Your task to perform on an android device: uninstall "Instagram" Image 0: 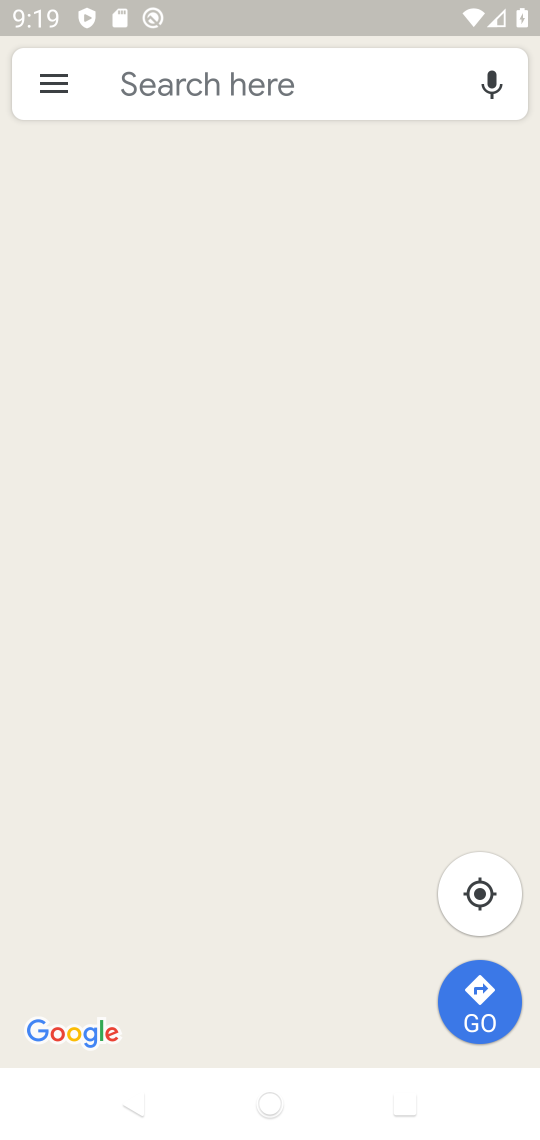
Step 0: press home button
Your task to perform on an android device: uninstall "Instagram" Image 1: 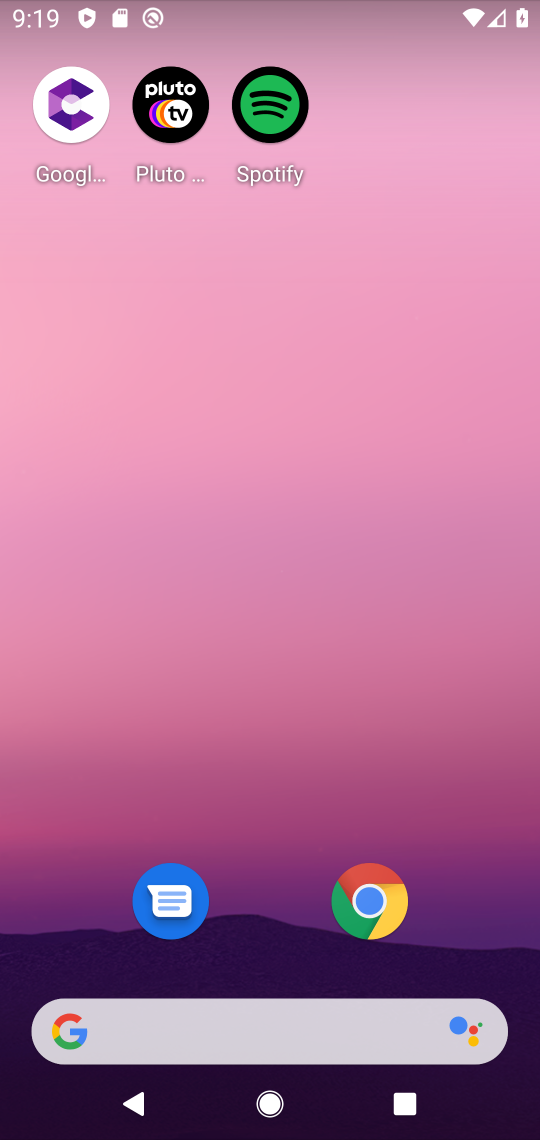
Step 1: drag from (465, 933) to (476, 145)
Your task to perform on an android device: uninstall "Instagram" Image 2: 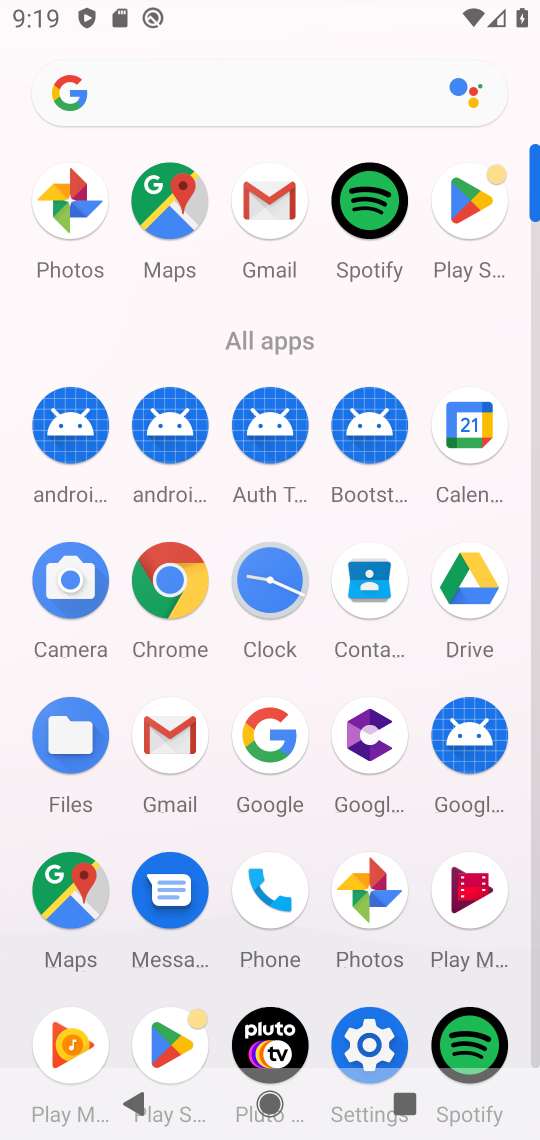
Step 2: click (482, 194)
Your task to perform on an android device: uninstall "Instagram" Image 3: 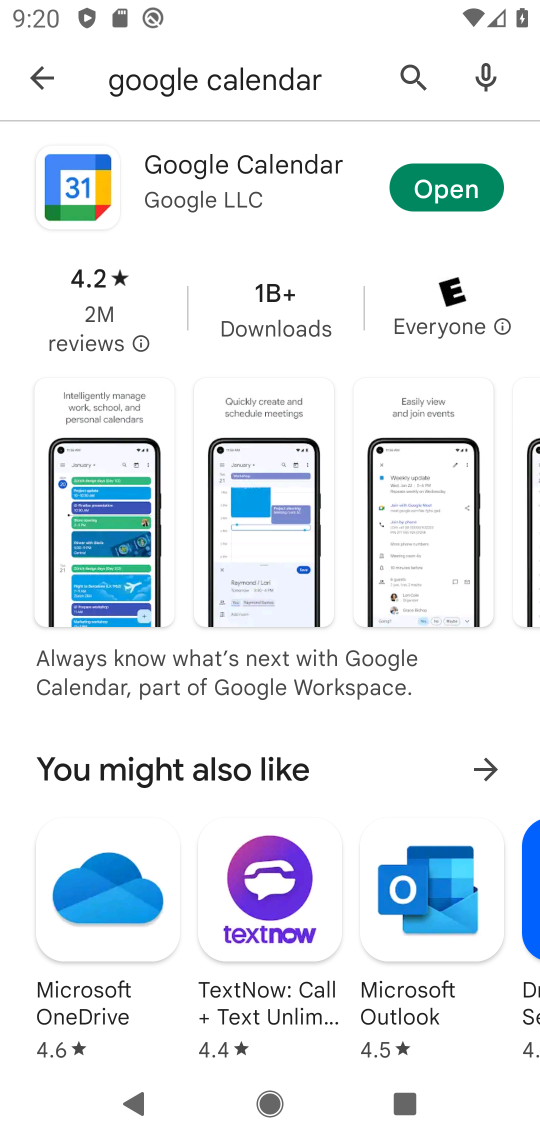
Step 3: press back button
Your task to perform on an android device: uninstall "Instagram" Image 4: 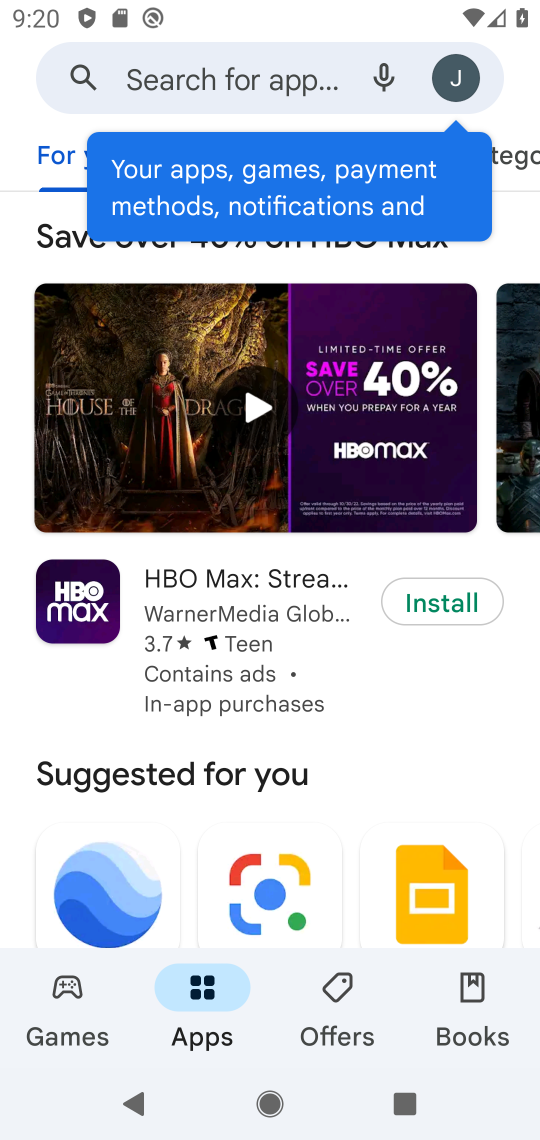
Step 4: click (269, 76)
Your task to perform on an android device: uninstall "Instagram" Image 5: 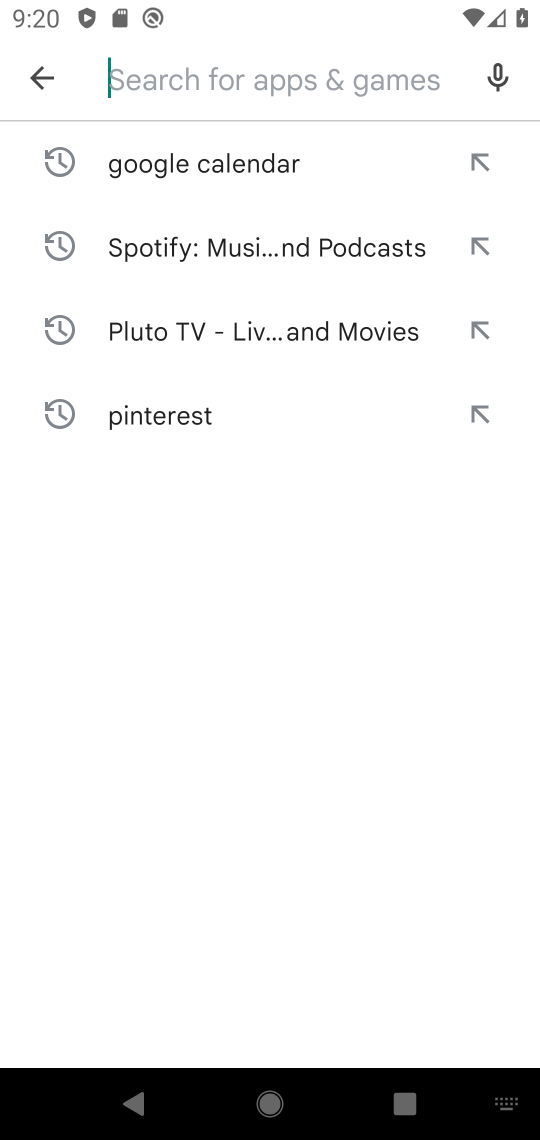
Step 5: type "instagram"
Your task to perform on an android device: uninstall "Instagram" Image 6: 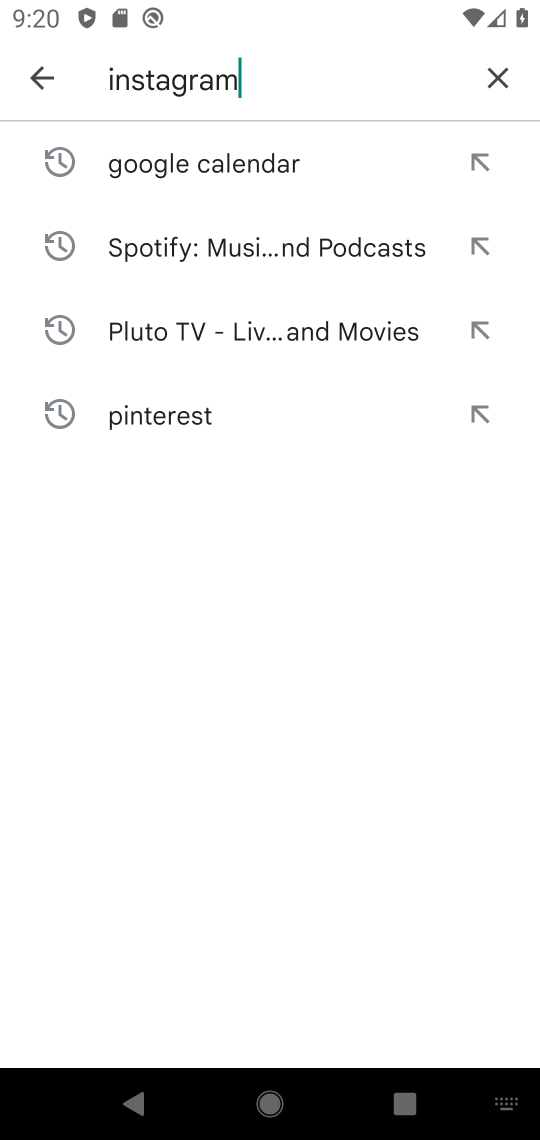
Step 6: press enter
Your task to perform on an android device: uninstall "Instagram" Image 7: 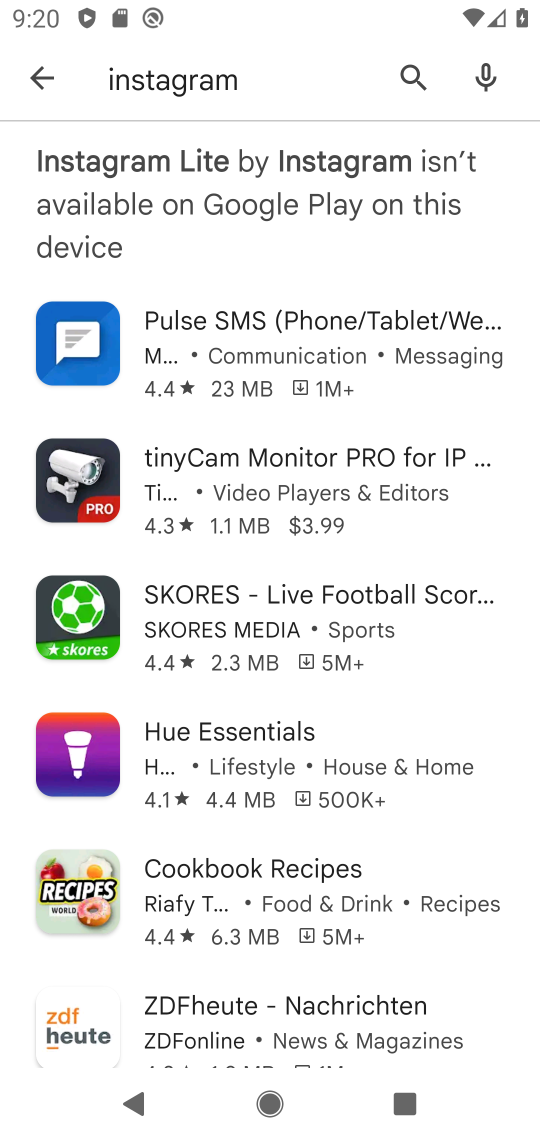
Step 7: click (348, 162)
Your task to perform on an android device: uninstall "Instagram" Image 8: 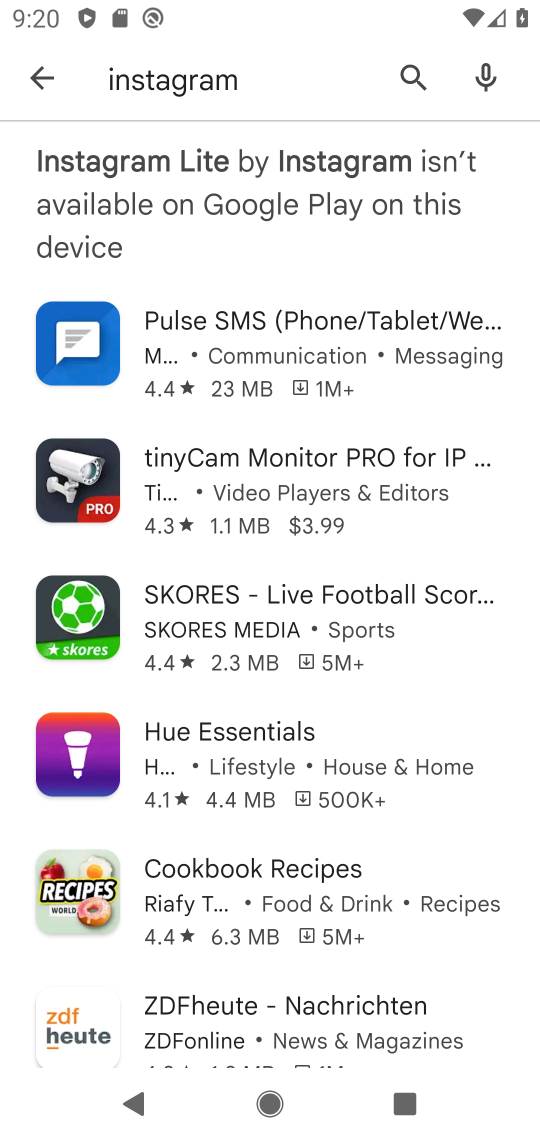
Step 8: task complete